Your task to perform on an android device: open app "Grab" (install if not already installed) Image 0: 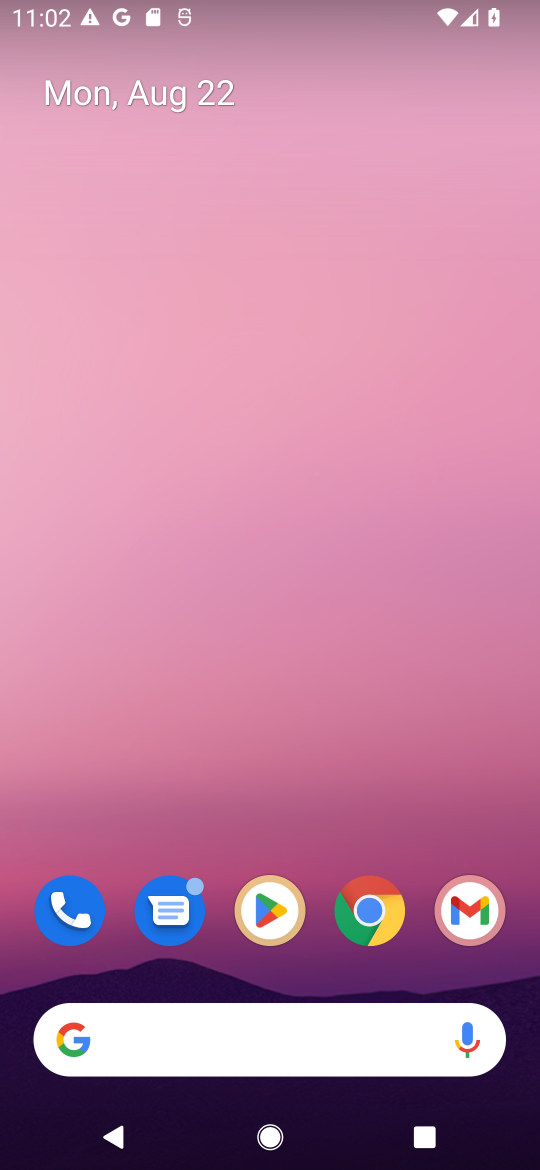
Step 0: click (269, 921)
Your task to perform on an android device: open app "Grab" (install if not already installed) Image 1: 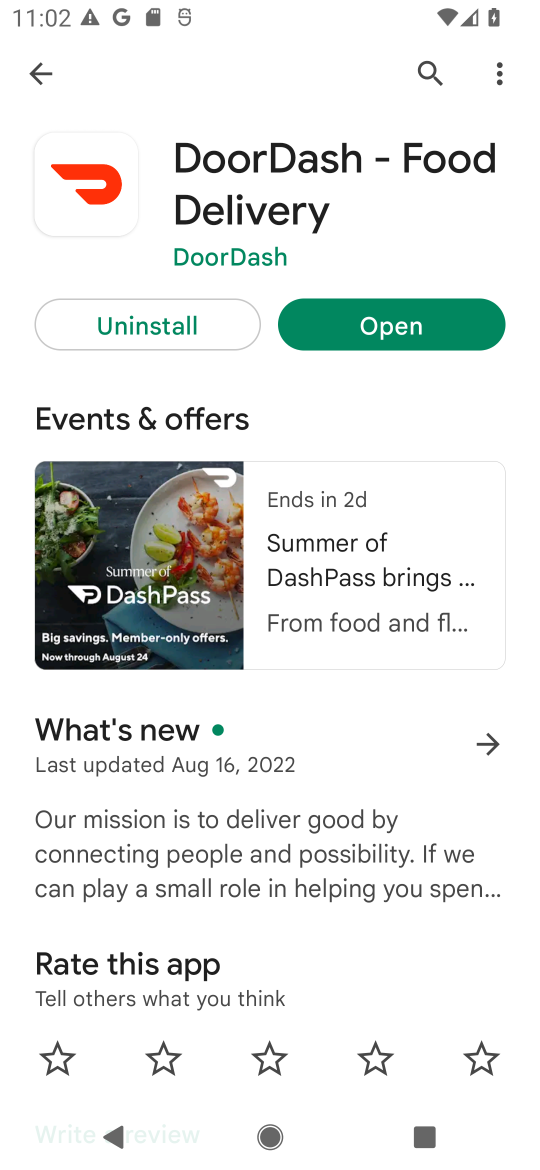
Step 1: click (432, 82)
Your task to perform on an android device: open app "Grab" (install if not already installed) Image 2: 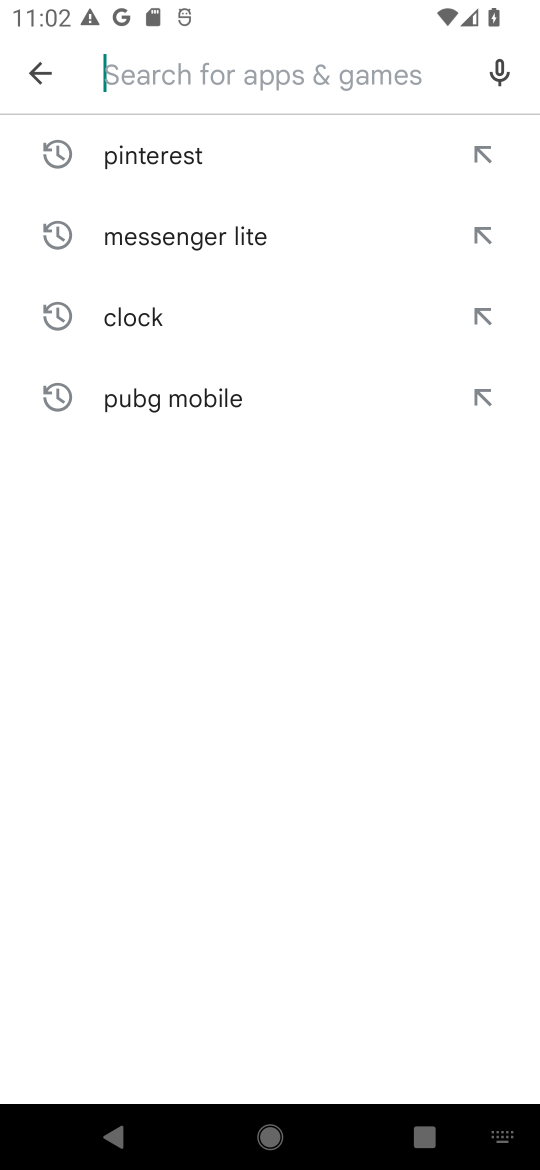
Step 2: type "Grab"
Your task to perform on an android device: open app "Grab" (install if not already installed) Image 3: 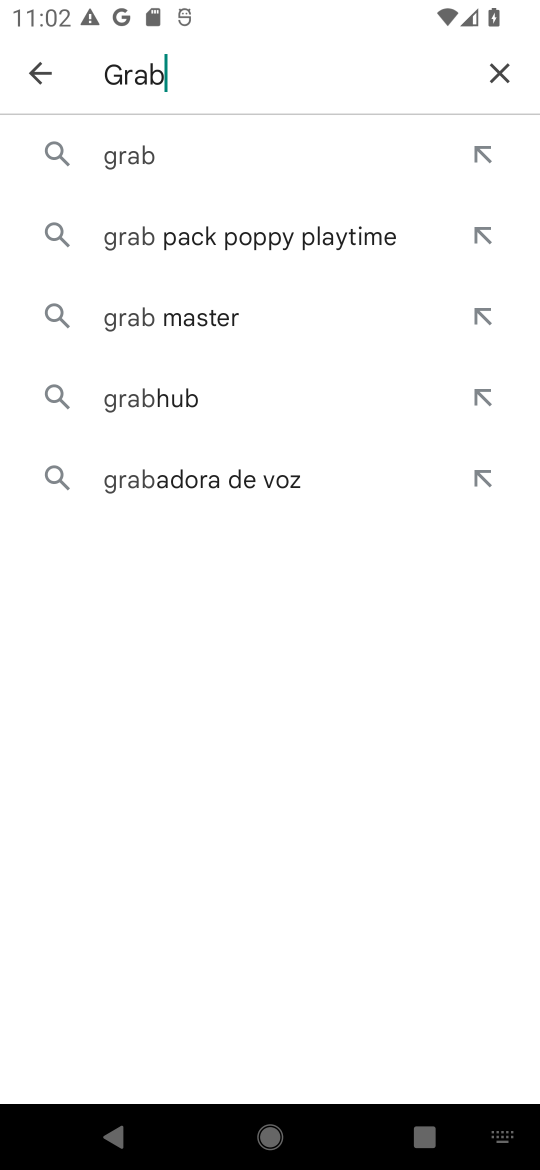
Step 3: click (157, 154)
Your task to perform on an android device: open app "Grab" (install if not already installed) Image 4: 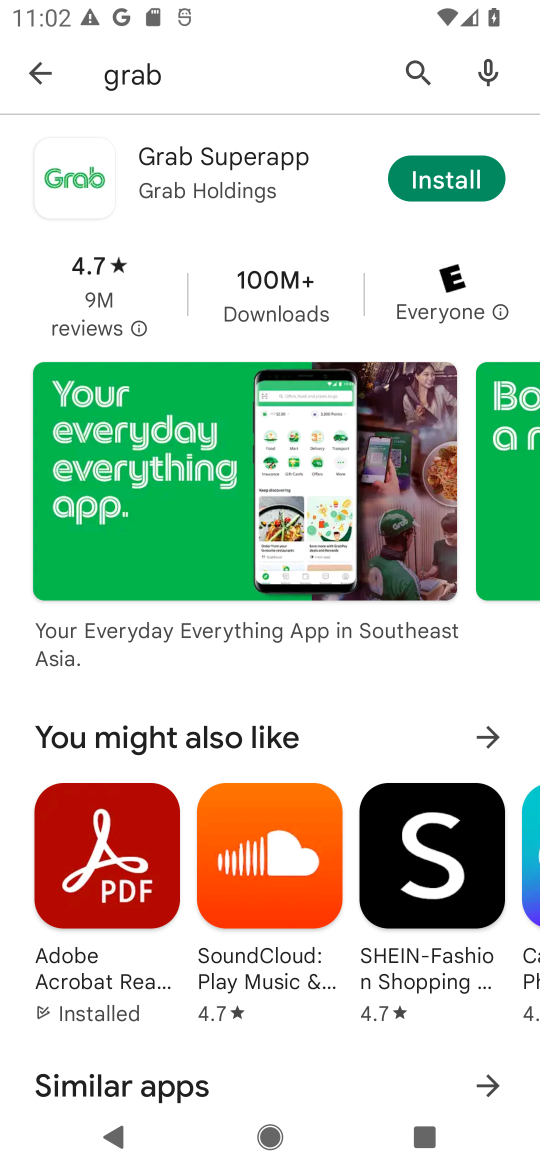
Step 4: drag from (320, 753) to (372, 369)
Your task to perform on an android device: open app "Grab" (install if not already installed) Image 5: 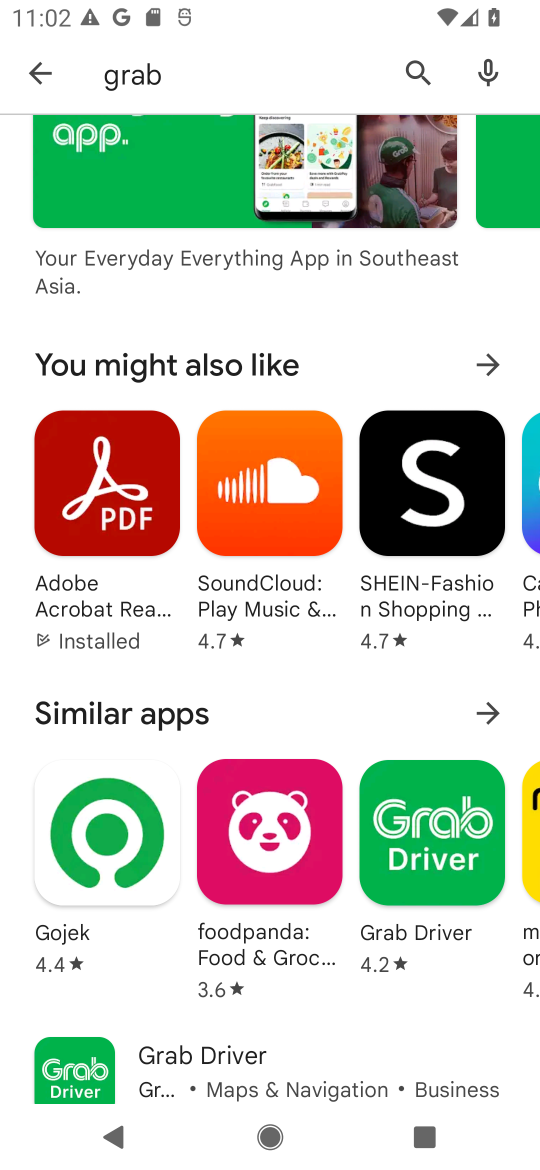
Step 5: drag from (323, 448) to (323, 860)
Your task to perform on an android device: open app "Grab" (install if not already installed) Image 6: 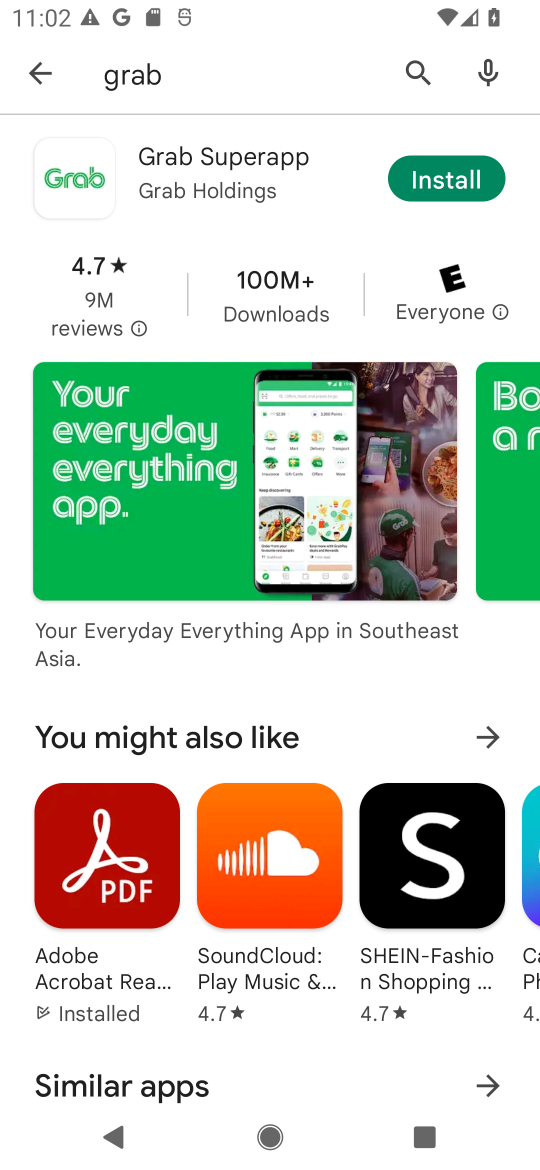
Step 6: click (435, 181)
Your task to perform on an android device: open app "Grab" (install if not already installed) Image 7: 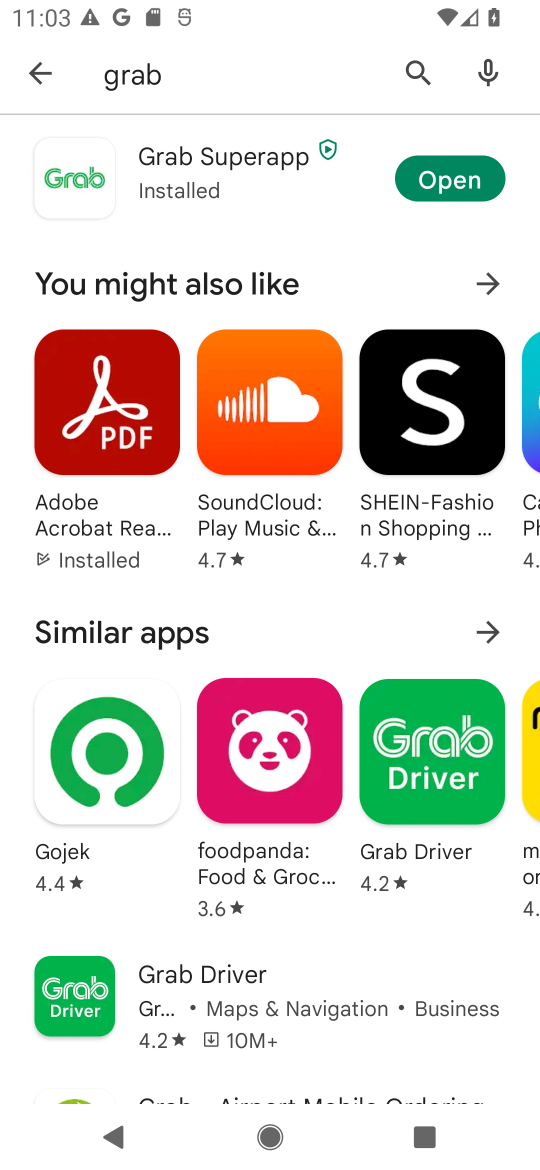
Step 7: click (435, 176)
Your task to perform on an android device: open app "Grab" (install if not already installed) Image 8: 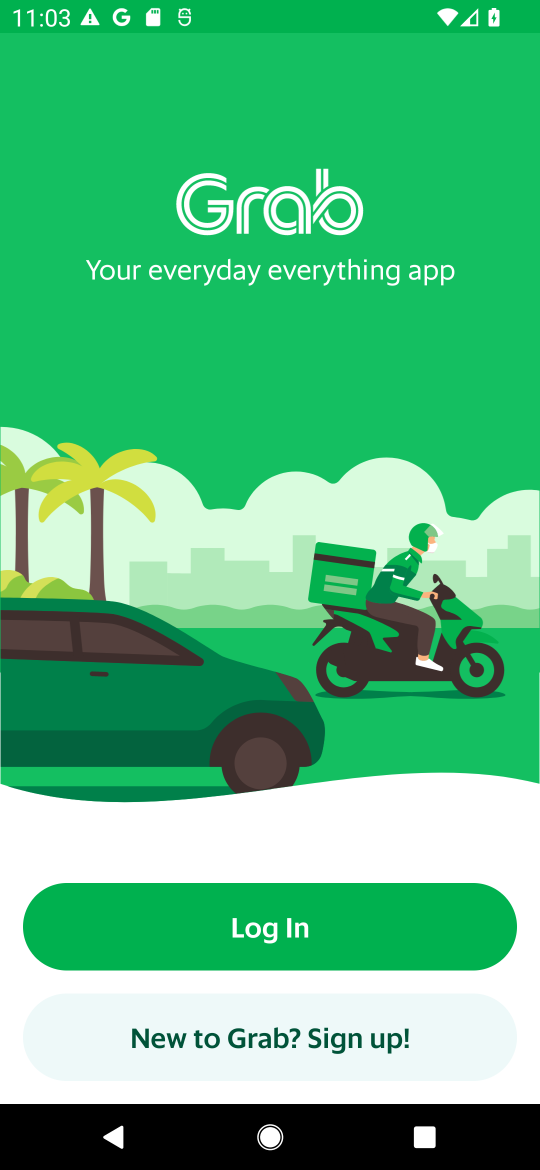
Step 8: task complete